Your task to perform on an android device: turn notification dots on Image 0: 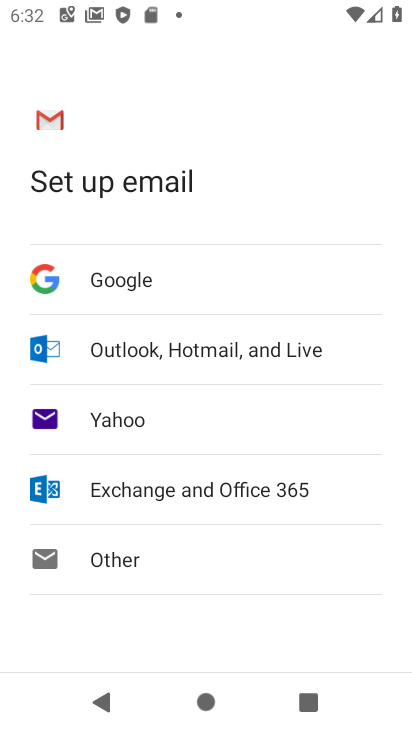
Step 0: press home button
Your task to perform on an android device: turn notification dots on Image 1: 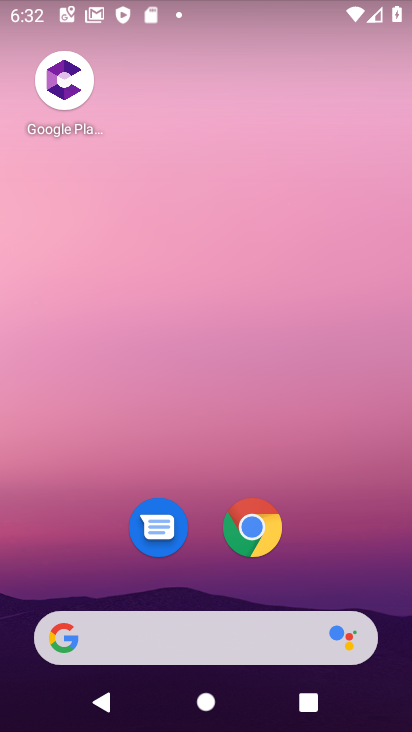
Step 1: drag from (400, 639) to (303, 19)
Your task to perform on an android device: turn notification dots on Image 2: 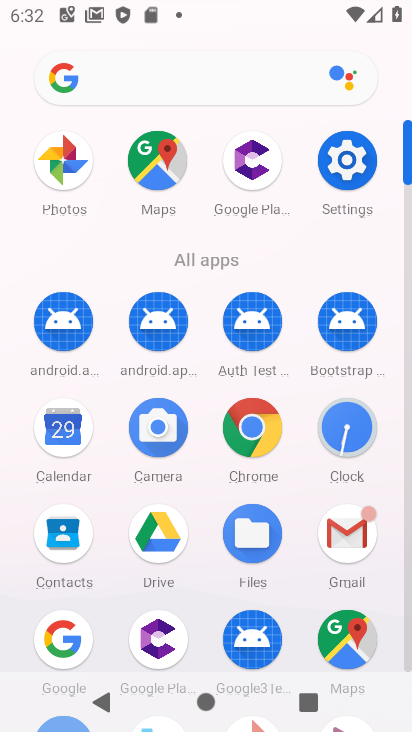
Step 2: click (340, 182)
Your task to perform on an android device: turn notification dots on Image 3: 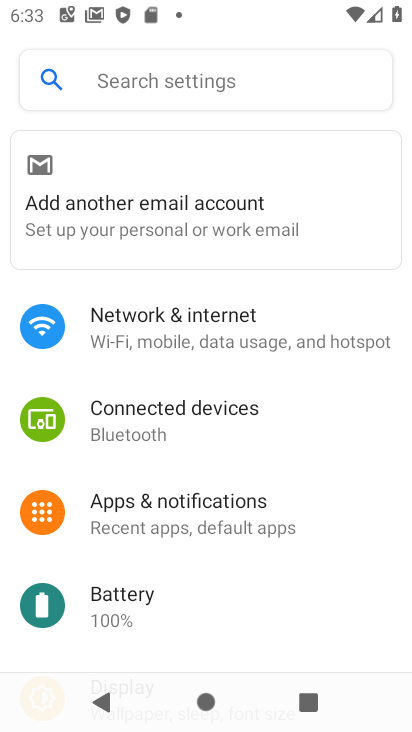
Step 3: click (221, 520)
Your task to perform on an android device: turn notification dots on Image 4: 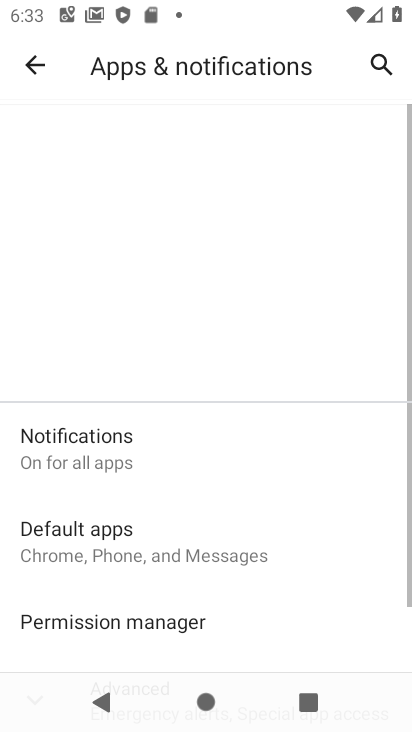
Step 4: click (179, 463)
Your task to perform on an android device: turn notification dots on Image 5: 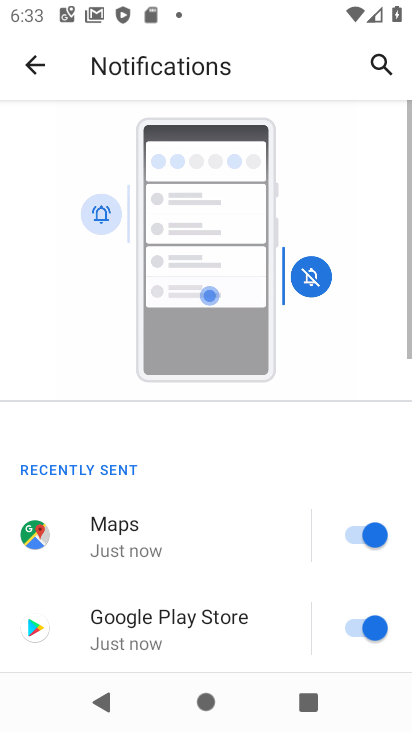
Step 5: drag from (257, 214) to (256, 87)
Your task to perform on an android device: turn notification dots on Image 6: 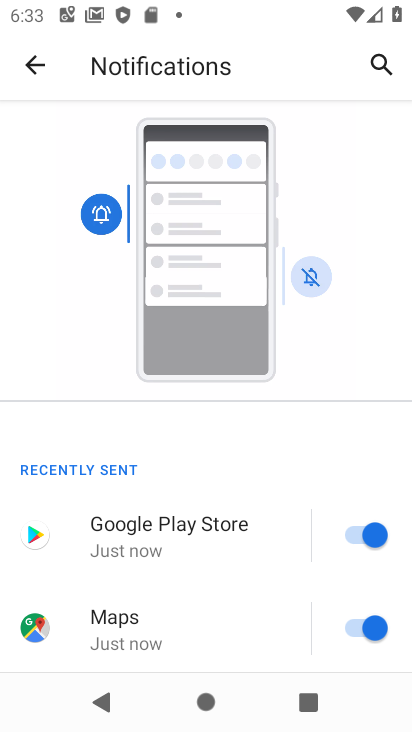
Step 6: drag from (194, 581) to (213, 109)
Your task to perform on an android device: turn notification dots on Image 7: 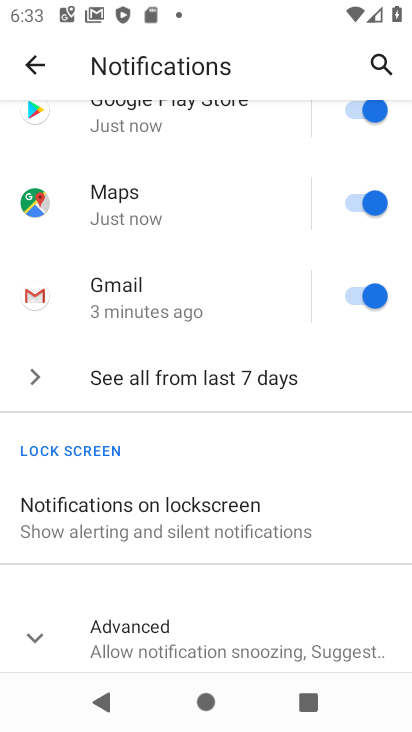
Step 7: click (101, 615)
Your task to perform on an android device: turn notification dots on Image 8: 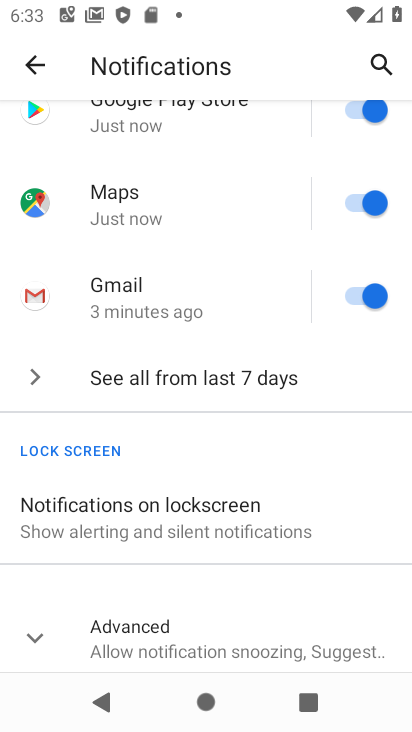
Step 8: task complete